Your task to perform on an android device: Open the phone app and click the voicemail tab. Image 0: 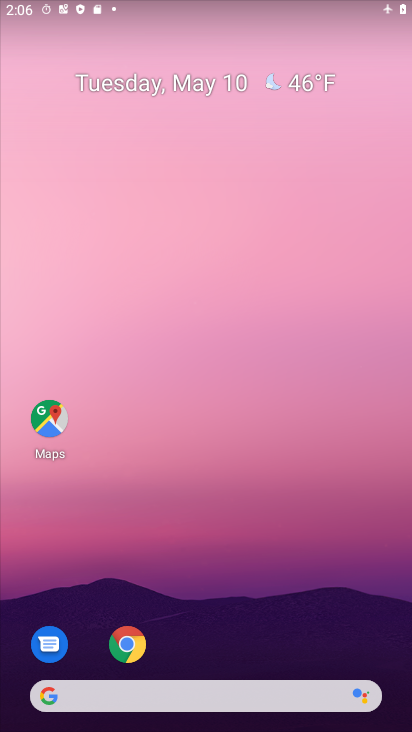
Step 0: drag from (238, 634) to (270, 292)
Your task to perform on an android device: Open the phone app and click the voicemail tab. Image 1: 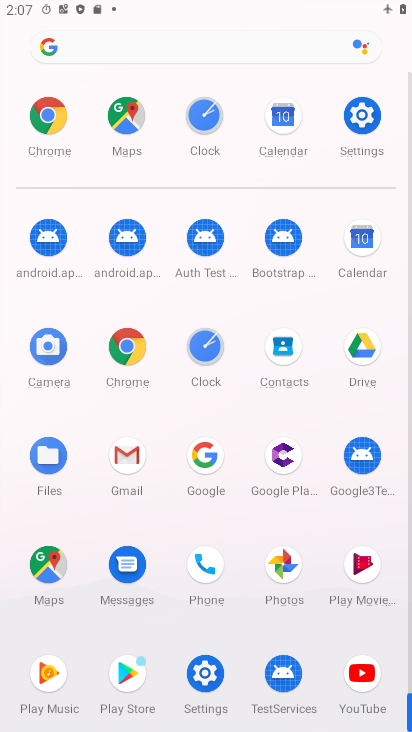
Step 1: click (203, 584)
Your task to perform on an android device: Open the phone app and click the voicemail tab. Image 2: 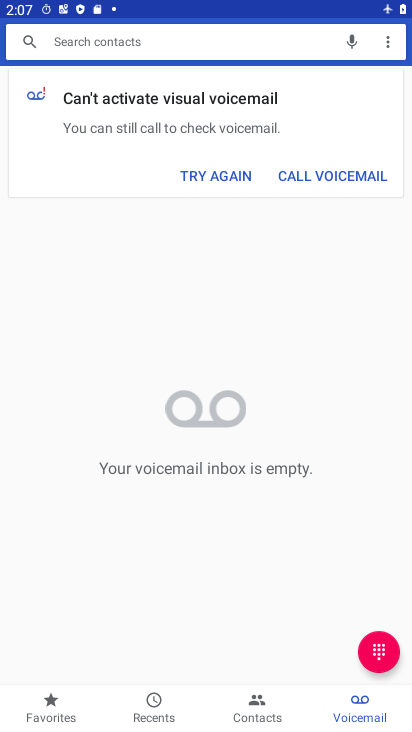
Step 2: task complete